Your task to perform on an android device: turn off notifications in google photos Image 0: 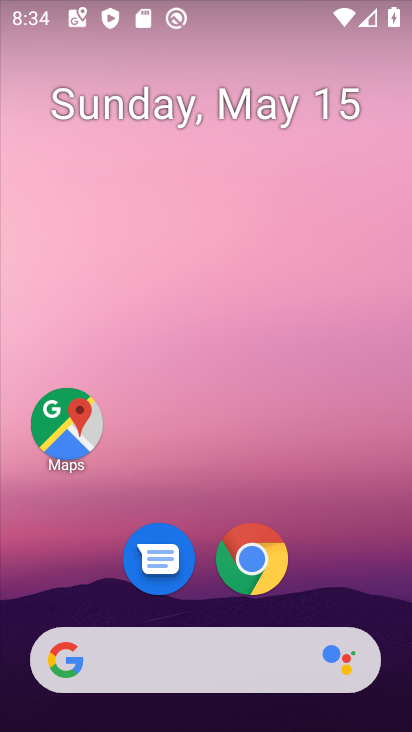
Step 0: drag from (365, 572) to (322, 177)
Your task to perform on an android device: turn off notifications in google photos Image 1: 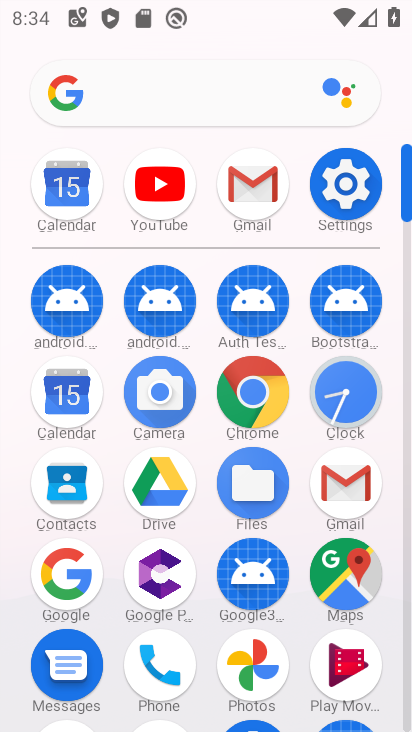
Step 1: click (272, 668)
Your task to perform on an android device: turn off notifications in google photos Image 2: 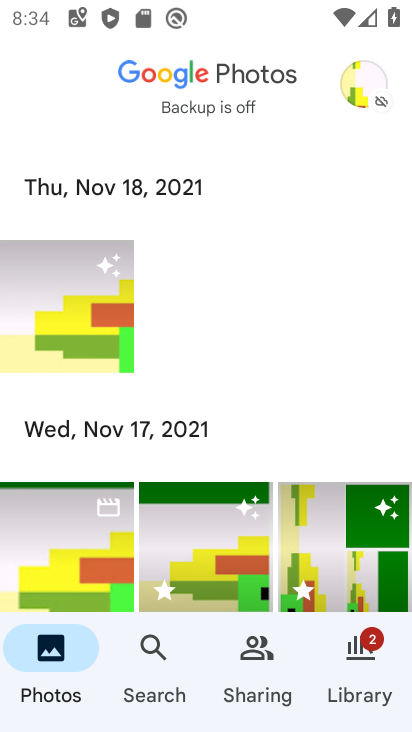
Step 2: click (371, 95)
Your task to perform on an android device: turn off notifications in google photos Image 3: 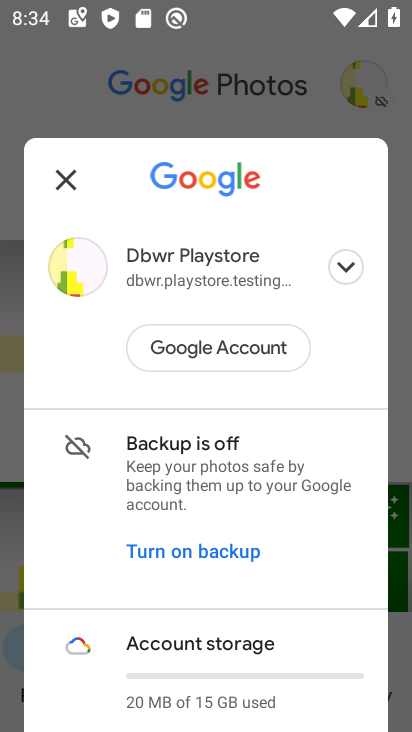
Step 3: drag from (280, 555) to (245, 178)
Your task to perform on an android device: turn off notifications in google photos Image 4: 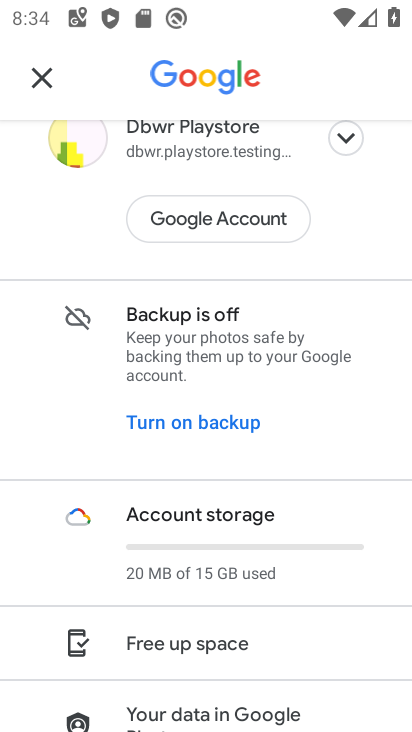
Step 4: click (346, 129)
Your task to perform on an android device: turn off notifications in google photos Image 5: 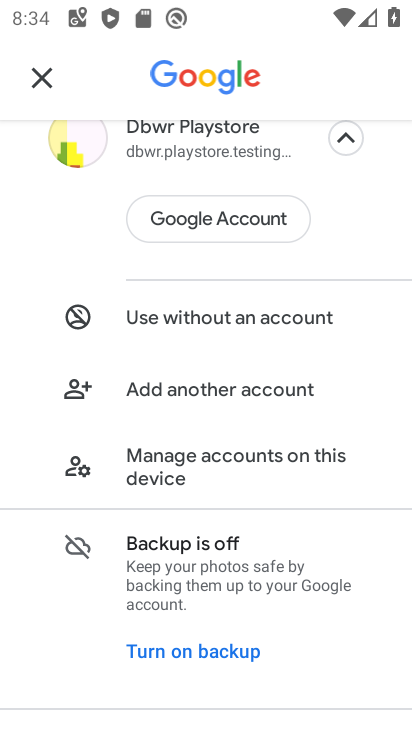
Step 5: click (242, 464)
Your task to perform on an android device: turn off notifications in google photos Image 6: 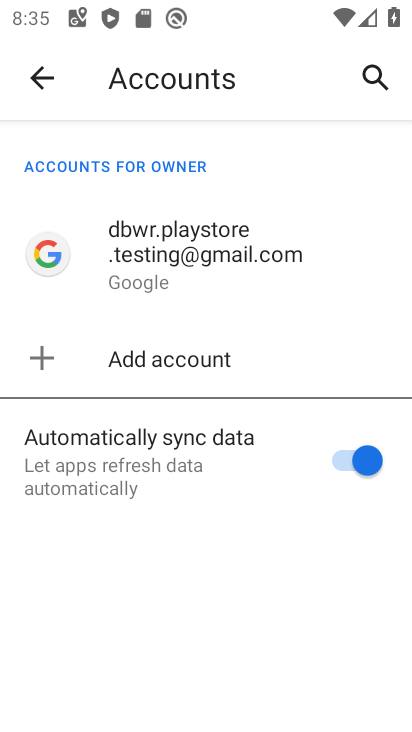
Step 6: click (59, 69)
Your task to perform on an android device: turn off notifications in google photos Image 7: 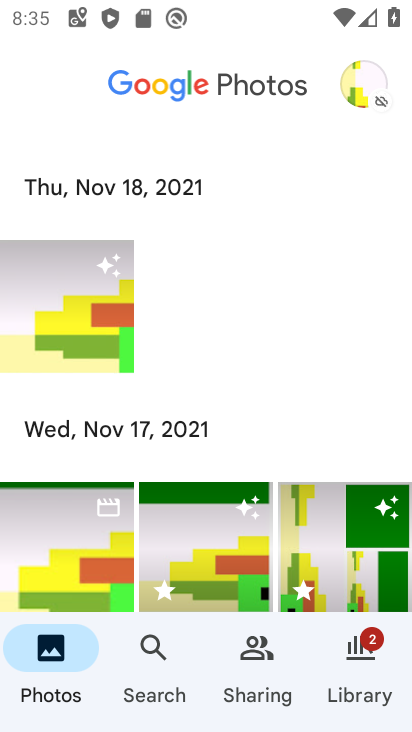
Step 7: click (371, 702)
Your task to perform on an android device: turn off notifications in google photos Image 8: 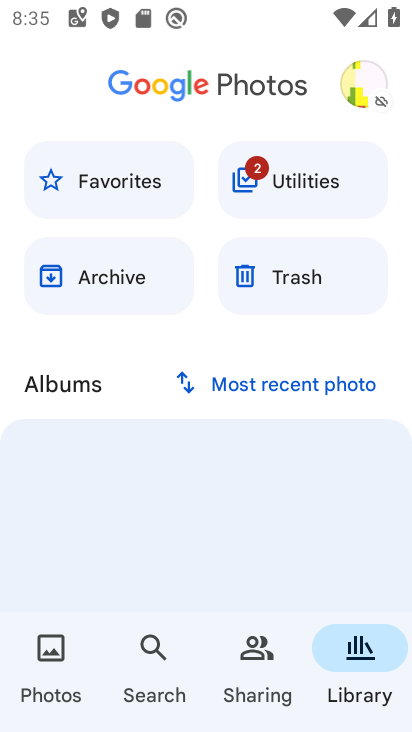
Step 8: click (360, 110)
Your task to perform on an android device: turn off notifications in google photos Image 9: 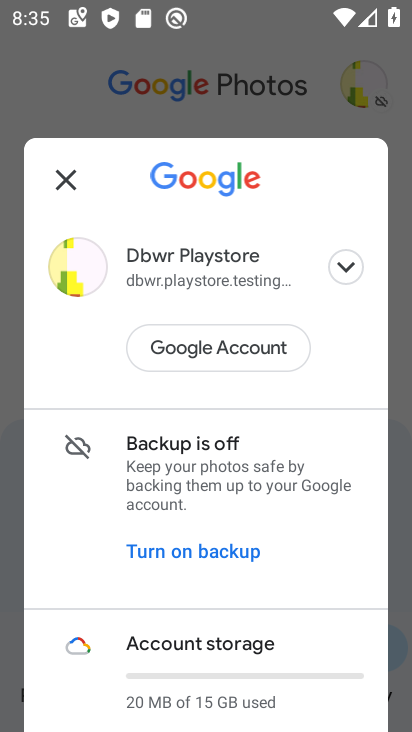
Step 9: drag from (234, 638) to (265, 475)
Your task to perform on an android device: turn off notifications in google photos Image 10: 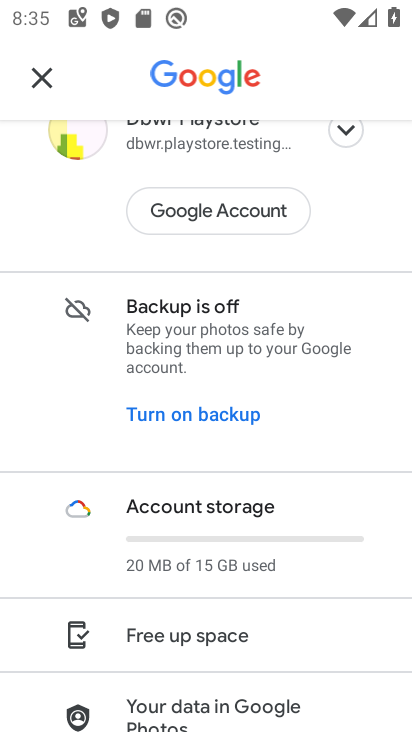
Step 10: click (240, 123)
Your task to perform on an android device: turn off notifications in google photos Image 11: 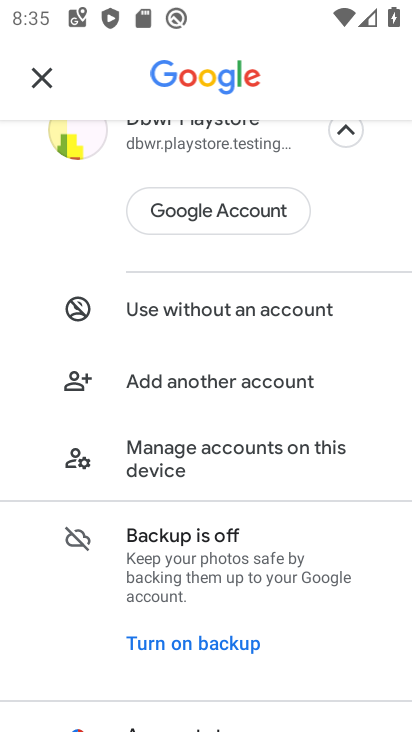
Step 11: task complete